Your task to perform on an android device: Open settings Image 0: 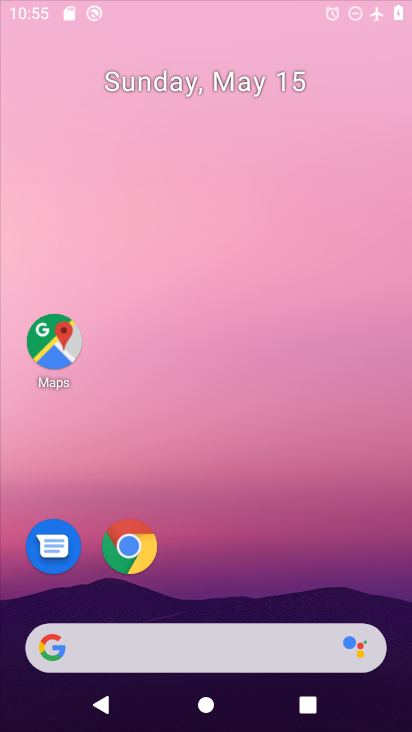
Step 0: click (126, 547)
Your task to perform on an android device: Open settings Image 1: 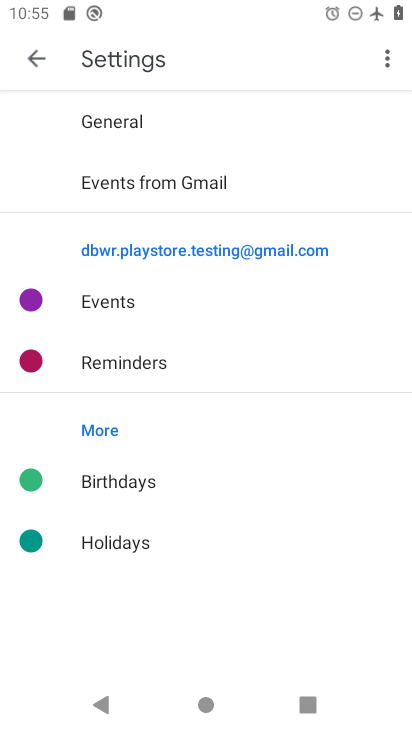
Step 1: press home button
Your task to perform on an android device: Open settings Image 2: 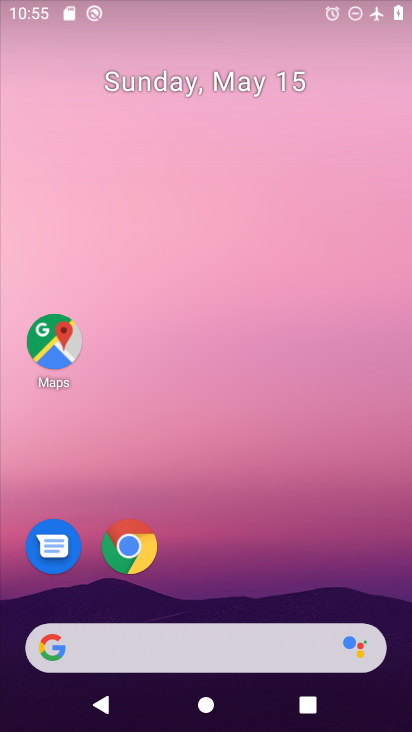
Step 2: drag from (280, 546) to (302, 31)
Your task to perform on an android device: Open settings Image 3: 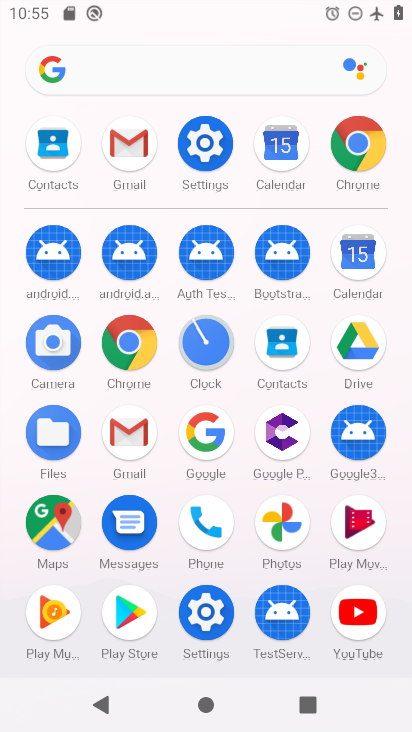
Step 3: click (211, 175)
Your task to perform on an android device: Open settings Image 4: 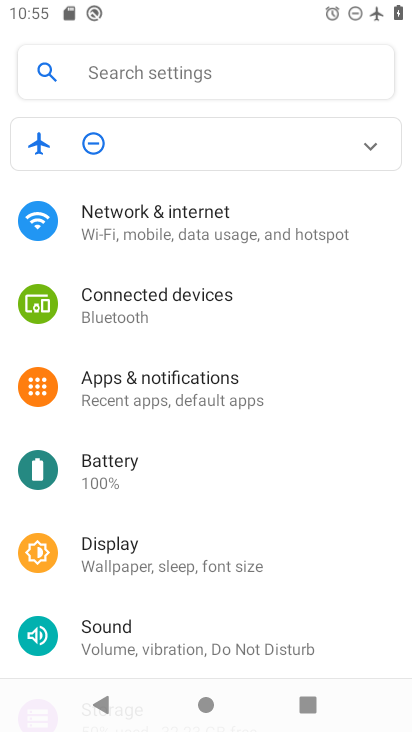
Step 4: task complete